Your task to perform on an android device: Open maps Image 0: 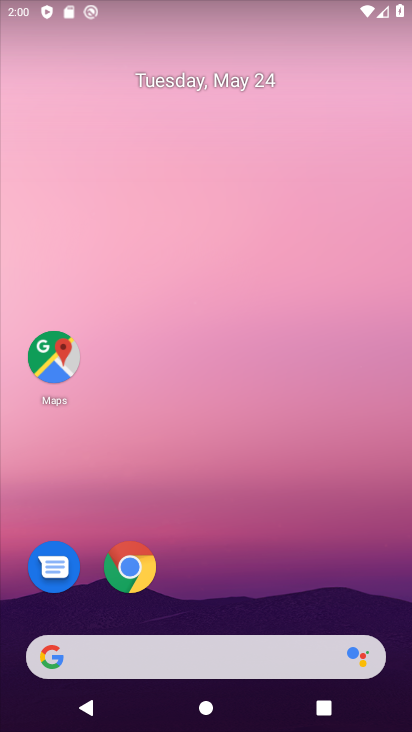
Step 0: click (55, 358)
Your task to perform on an android device: Open maps Image 1: 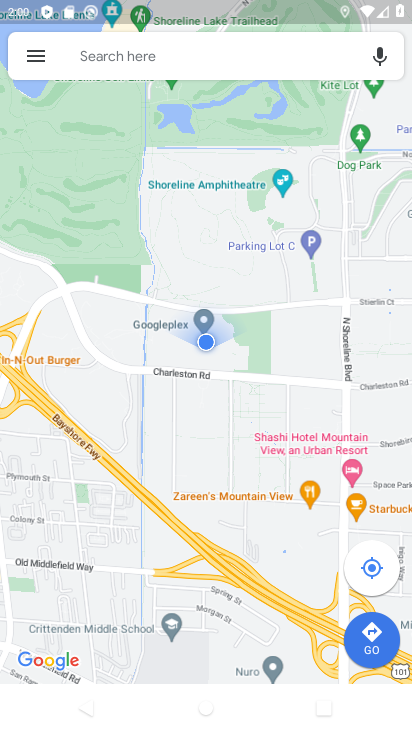
Step 1: task complete